Your task to perform on an android device: turn off location history Image 0: 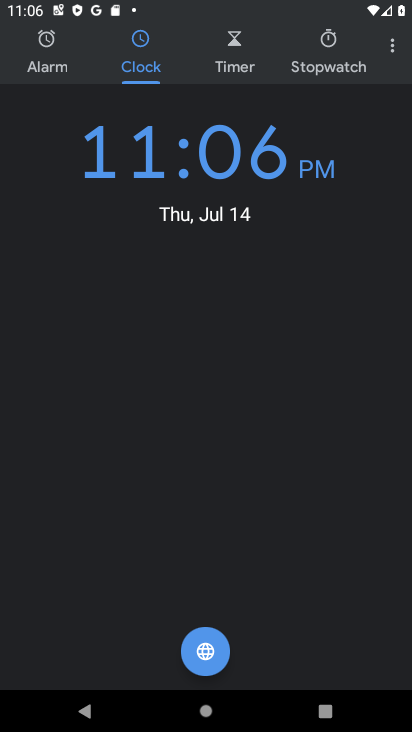
Step 0: press home button
Your task to perform on an android device: turn off location history Image 1: 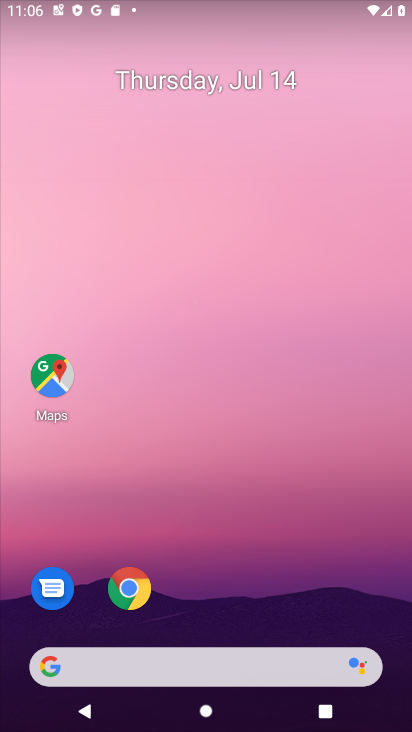
Step 1: drag from (352, 564) to (164, 123)
Your task to perform on an android device: turn off location history Image 2: 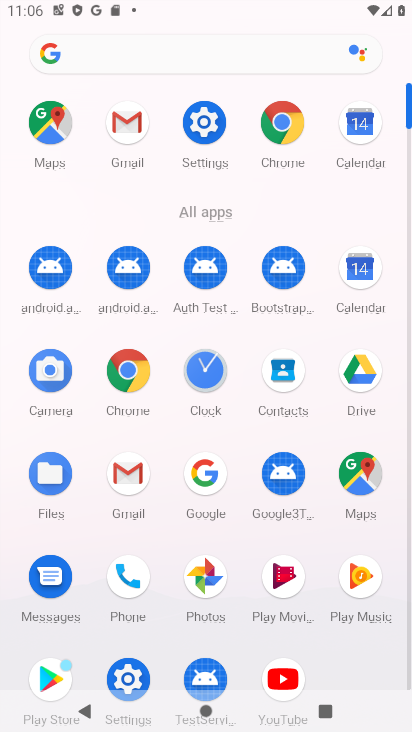
Step 2: click (57, 152)
Your task to perform on an android device: turn off location history Image 3: 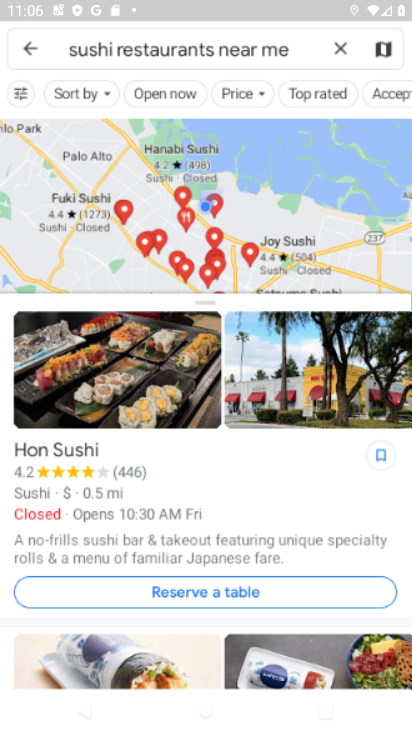
Step 3: click (24, 50)
Your task to perform on an android device: turn off location history Image 4: 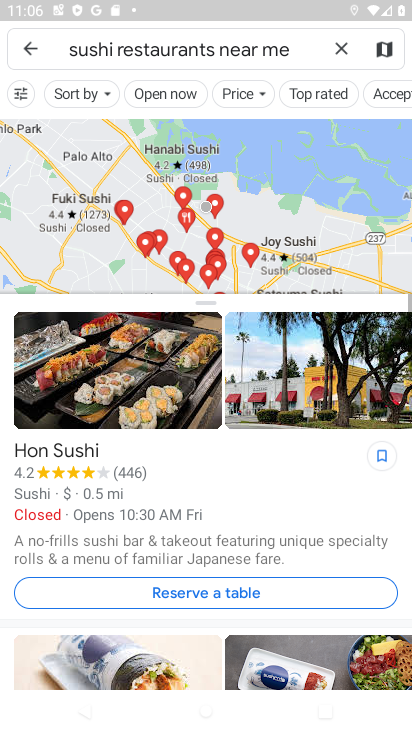
Step 4: click (24, 50)
Your task to perform on an android device: turn off location history Image 5: 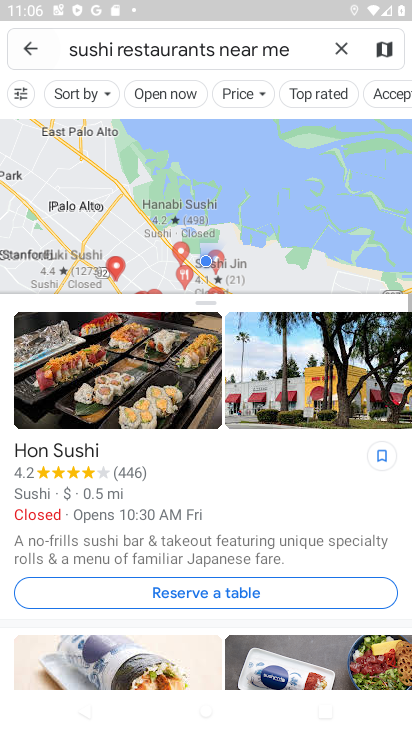
Step 5: click (24, 50)
Your task to perform on an android device: turn off location history Image 6: 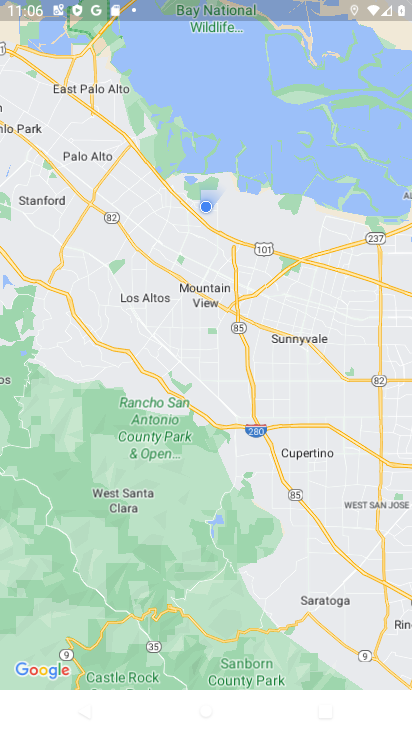
Step 6: click (56, 122)
Your task to perform on an android device: turn off location history Image 7: 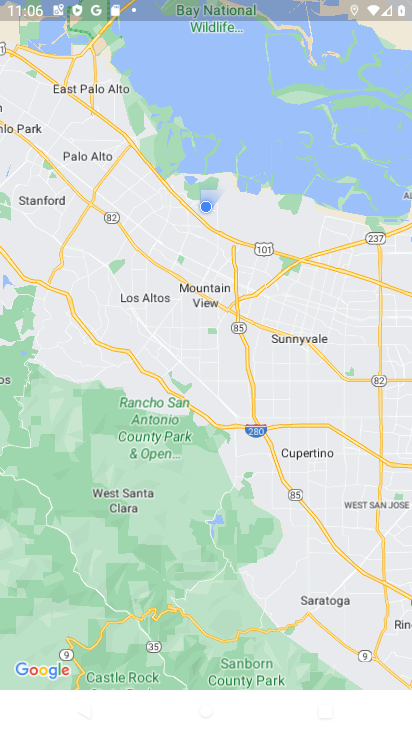
Step 7: press back button
Your task to perform on an android device: turn off location history Image 8: 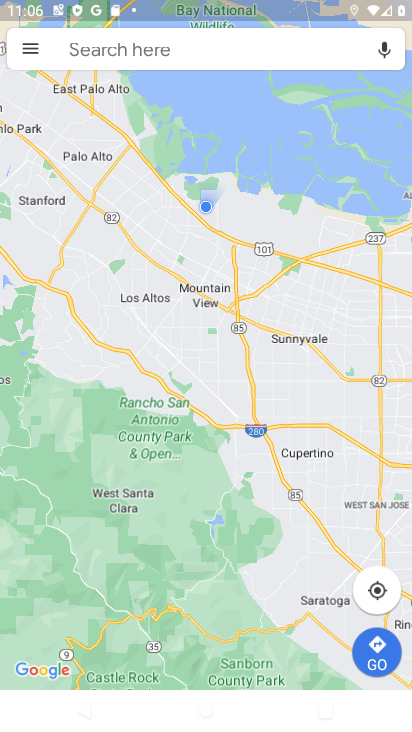
Step 8: click (25, 46)
Your task to perform on an android device: turn off location history Image 9: 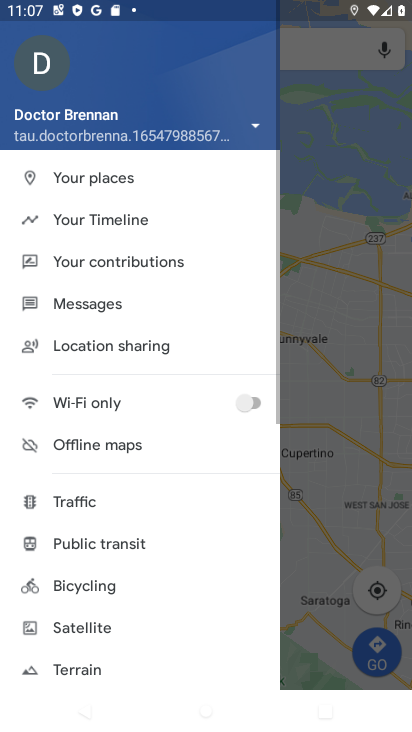
Step 9: click (40, 226)
Your task to perform on an android device: turn off location history Image 10: 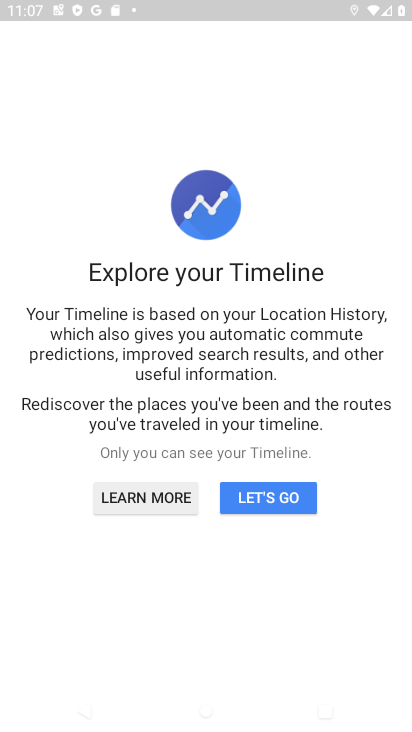
Step 10: click (261, 503)
Your task to perform on an android device: turn off location history Image 11: 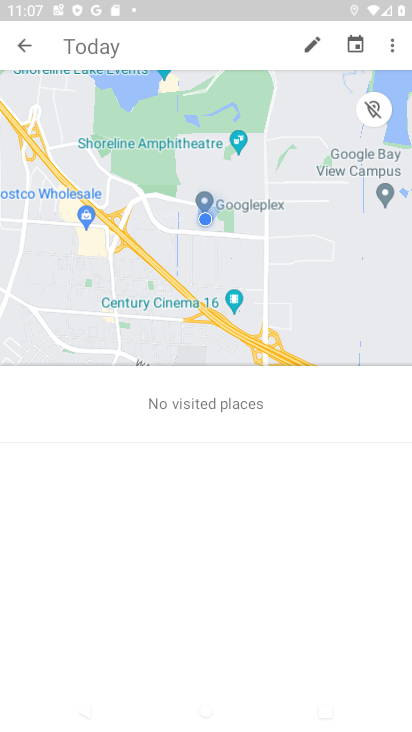
Step 11: click (386, 59)
Your task to perform on an android device: turn off location history Image 12: 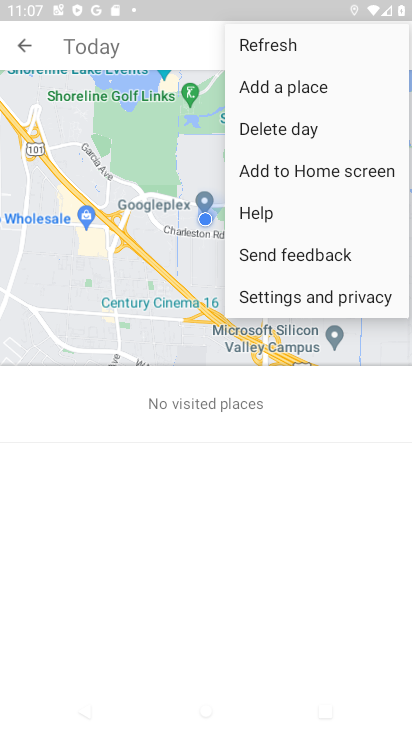
Step 12: click (305, 291)
Your task to perform on an android device: turn off location history Image 13: 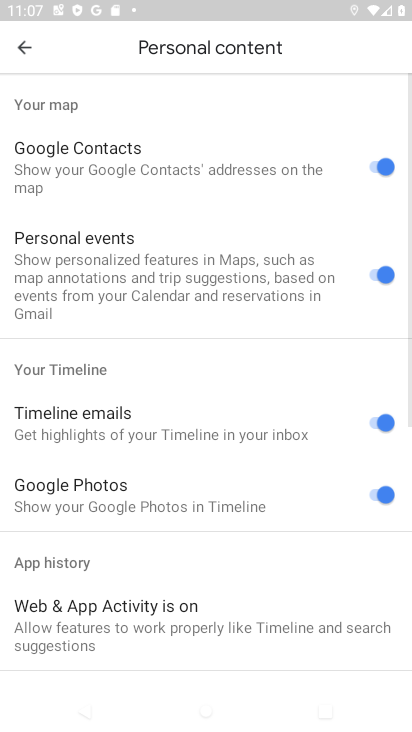
Step 13: drag from (107, 535) to (227, 108)
Your task to perform on an android device: turn off location history Image 14: 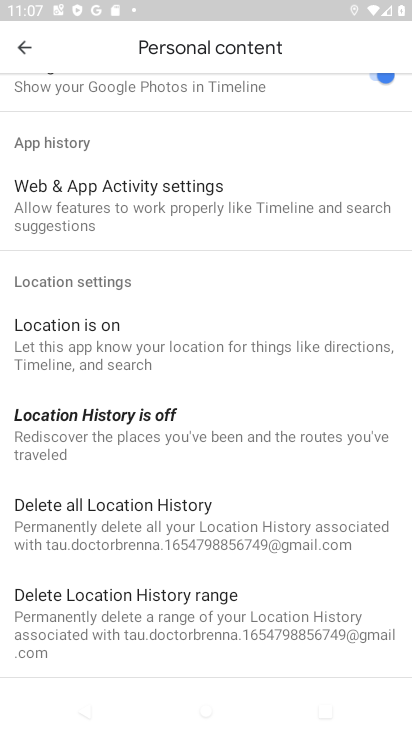
Step 14: click (121, 439)
Your task to perform on an android device: turn off location history Image 15: 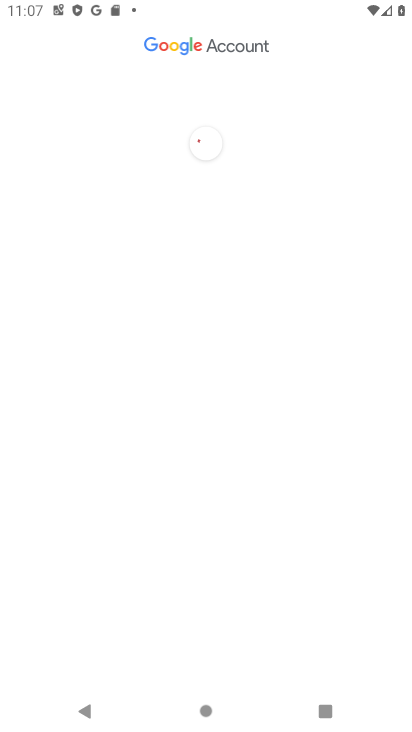
Step 15: drag from (195, 523) to (221, 114)
Your task to perform on an android device: turn off location history Image 16: 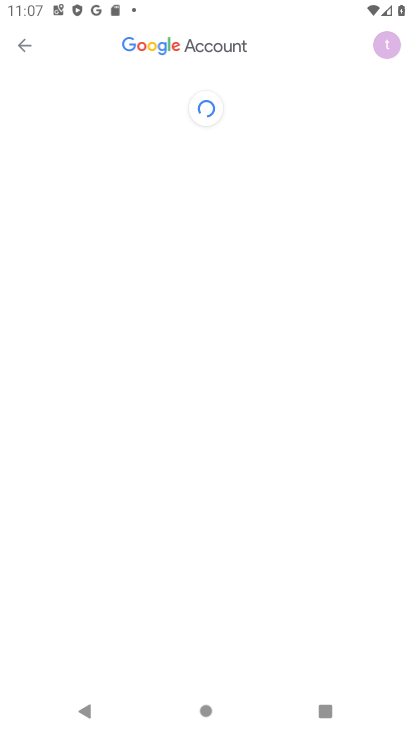
Step 16: drag from (267, 483) to (197, 203)
Your task to perform on an android device: turn off location history Image 17: 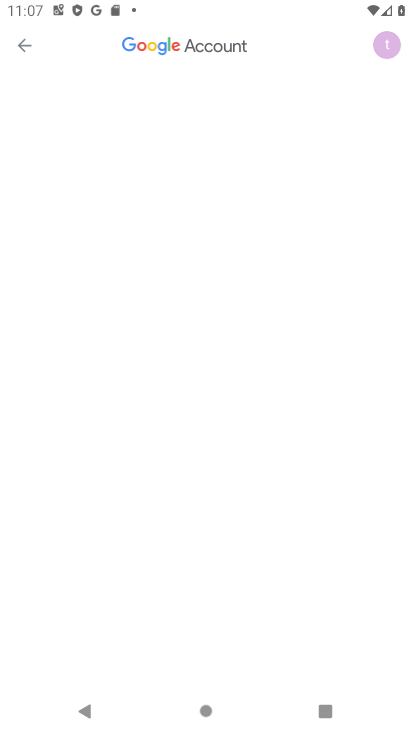
Step 17: drag from (287, 574) to (272, 299)
Your task to perform on an android device: turn off location history Image 18: 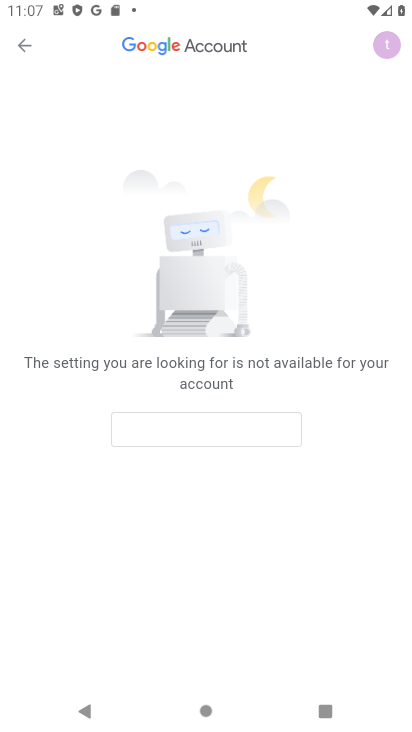
Step 18: drag from (324, 657) to (247, 165)
Your task to perform on an android device: turn off location history Image 19: 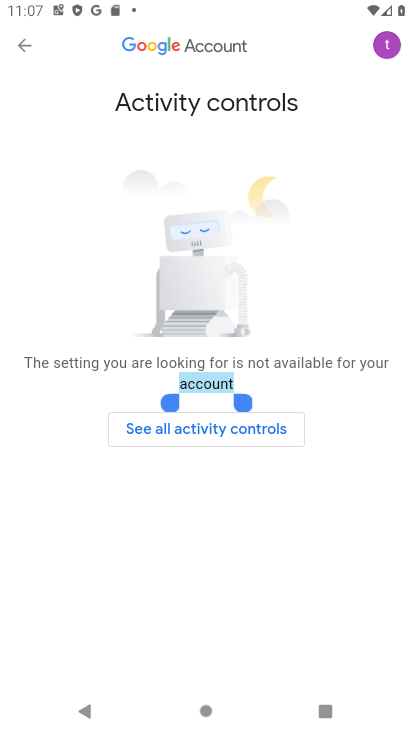
Step 19: click (248, 420)
Your task to perform on an android device: turn off location history Image 20: 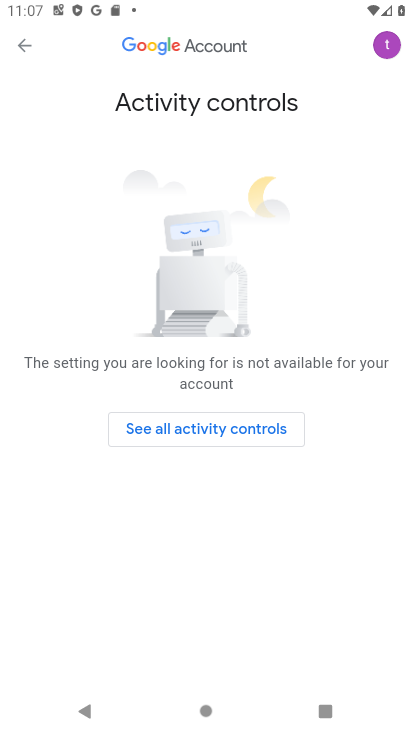
Step 20: click (266, 429)
Your task to perform on an android device: turn off location history Image 21: 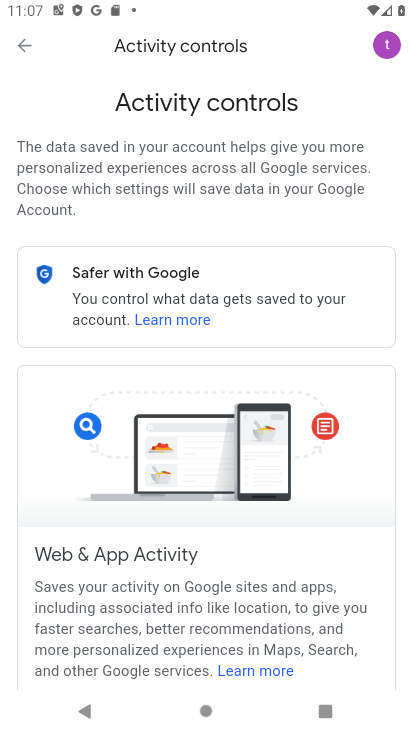
Step 21: drag from (266, 598) to (217, 261)
Your task to perform on an android device: turn off location history Image 22: 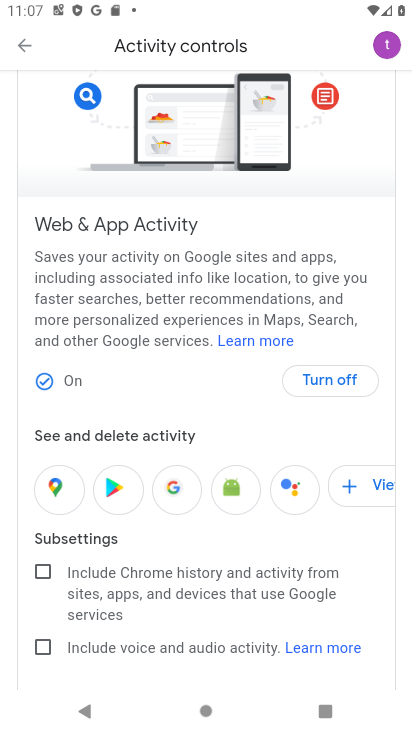
Step 22: click (330, 383)
Your task to perform on an android device: turn off location history Image 23: 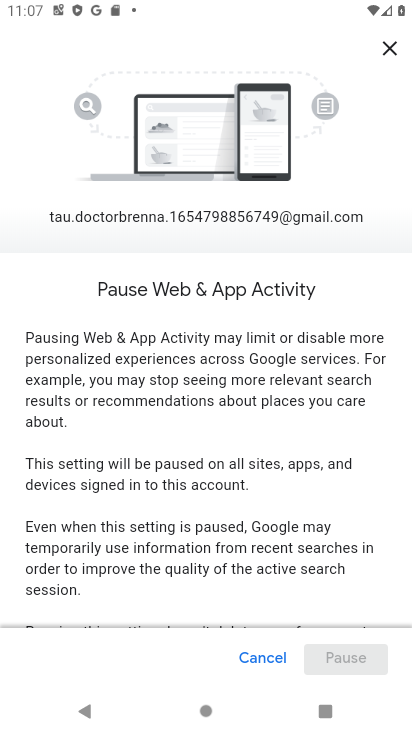
Step 23: drag from (317, 624) to (350, 213)
Your task to perform on an android device: turn off location history Image 24: 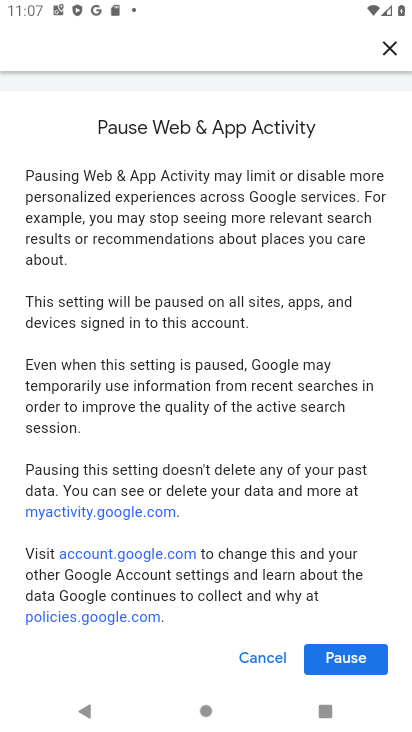
Step 24: click (342, 645)
Your task to perform on an android device: turn off location history Image 25: 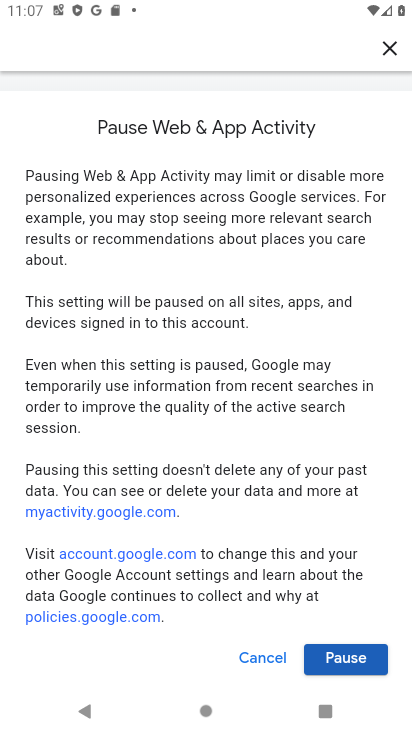
Step 25: click (342, 660)
Your task to perform on an android device: turn off location history Image 26: 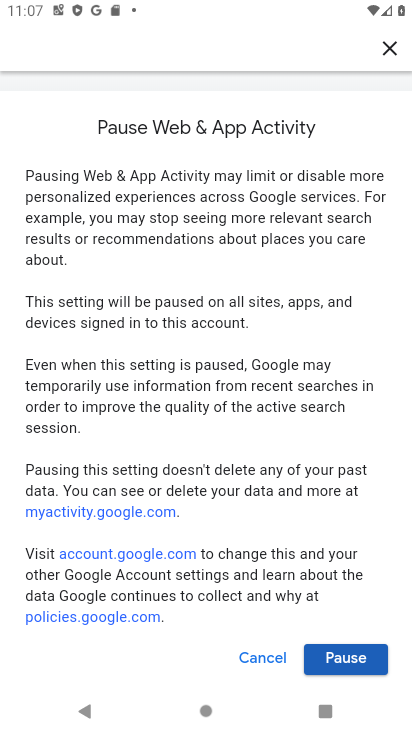
Step 26: click (342, 660)
Your task to perform on an android device: turn off location history Image 27: 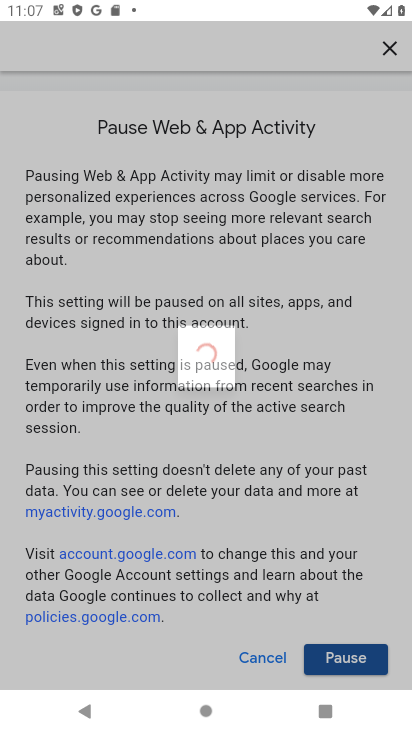
Step 27: click (342, 660)
Your task to perform on an android device: turn off location history Image 28: 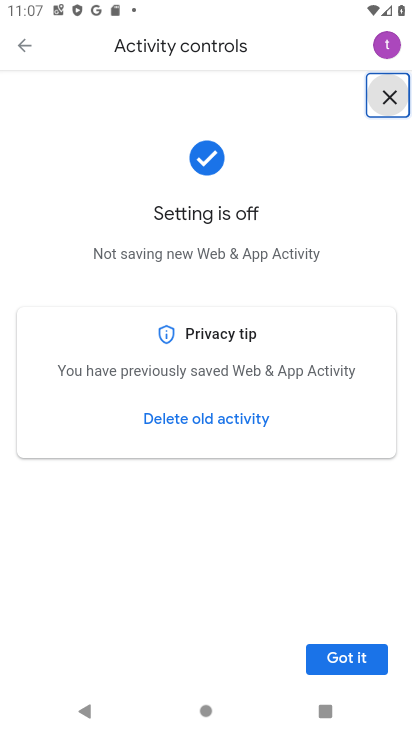
Step 28: click (332, 654)
Your task to perform on an android device: turn off location history Image 29: 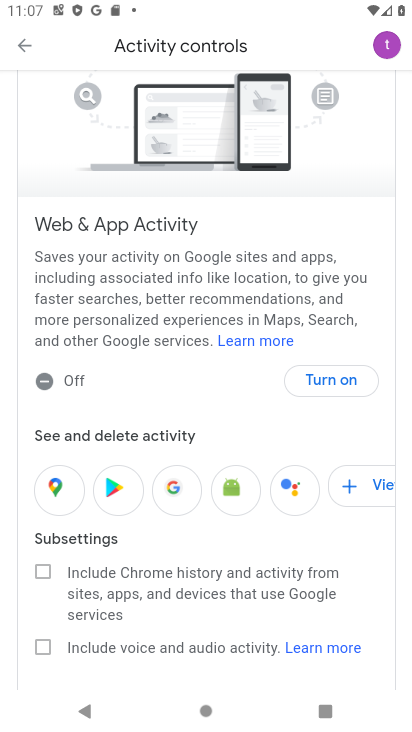
Step 29: task complete